Your task to perform on an android device: Is it going to rain today? Image 0: 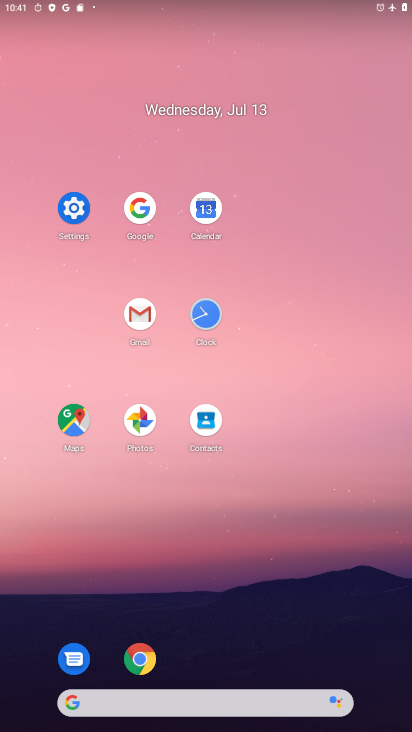
Step 0: click (139, 652)
Your task to perform on an android device: Is it going to rain today? Image 1: 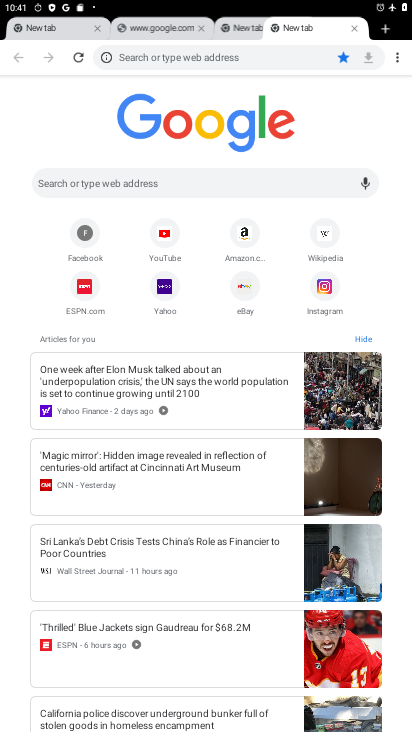
Step 1: click (162, 183)
Your task to perform on an android device: Is it going to rain today? Image 2: 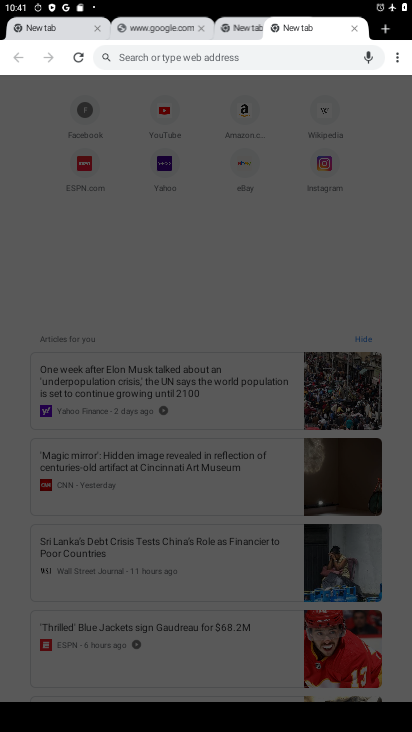
Step 2: type "weather"
Your task to perform on an android device: Is it going to rain today? Image 3: 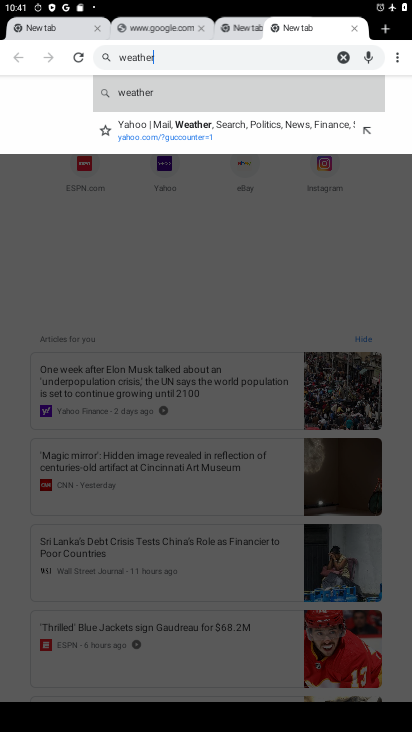
Step 3: click (199, 94)
Your task to perform on an android device: Is it going to rain today? Image 4: 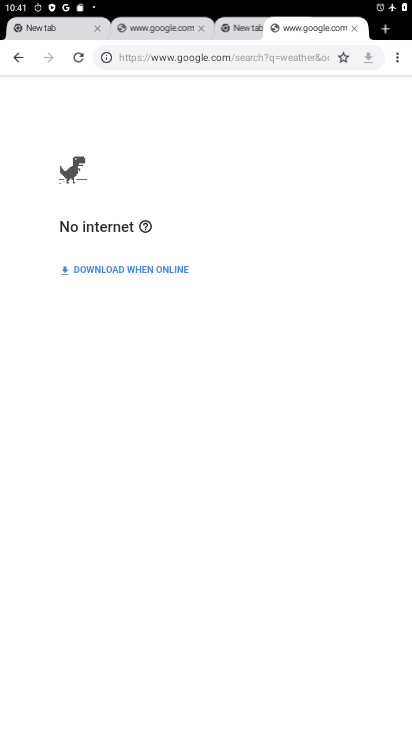
Step 4: task complete